Your task to perform on an android device: open a bookmark in the chrome app Image 0: 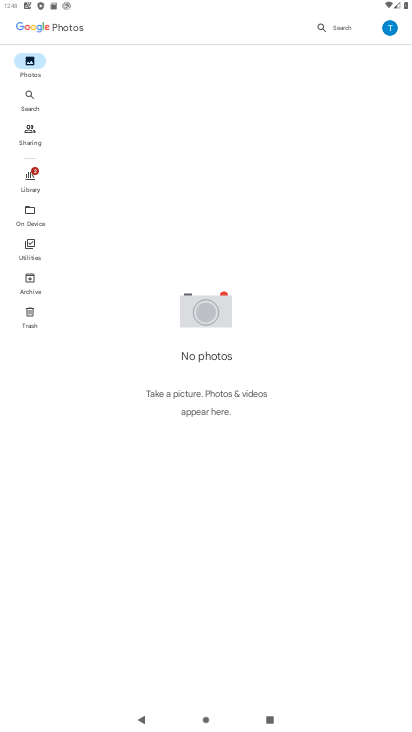
Step 0: press home button
Your task to perform on an android device: open a bookmark in the chrome app Image 1: 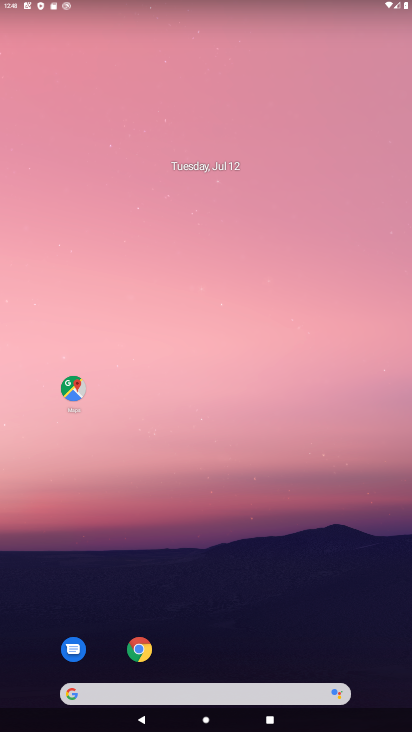
Step 1: click (152, 651)
Your task to perform on an android device: open a bookmark in the chrome app Image 2: 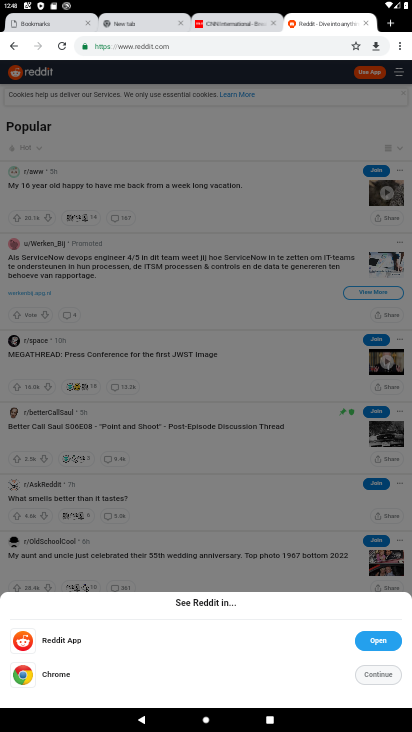
Step 2: click (395, 48)
Your task to perform on an android device: open a bookmark in the chrome app Image 3: 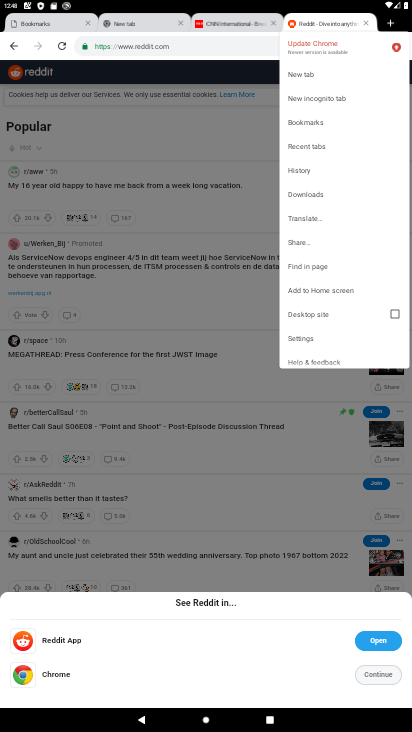
Step 3: click (321, 125)
Your task to perform on an android device: open a bookmark in the chrome app Image 4: 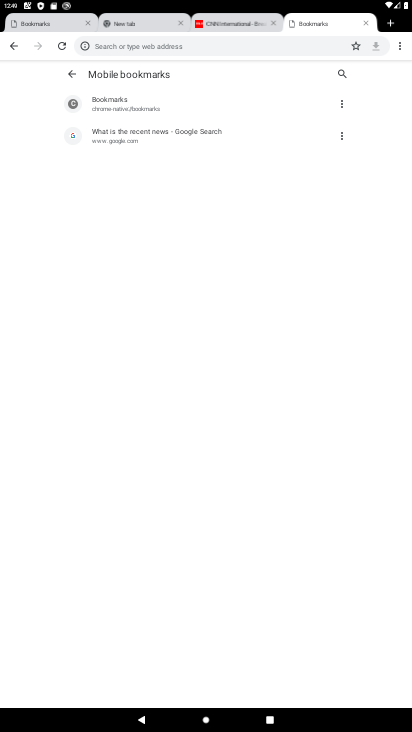
Step 4: task complete